Your task to perform on an android device: Open Google Chrome Image 0: 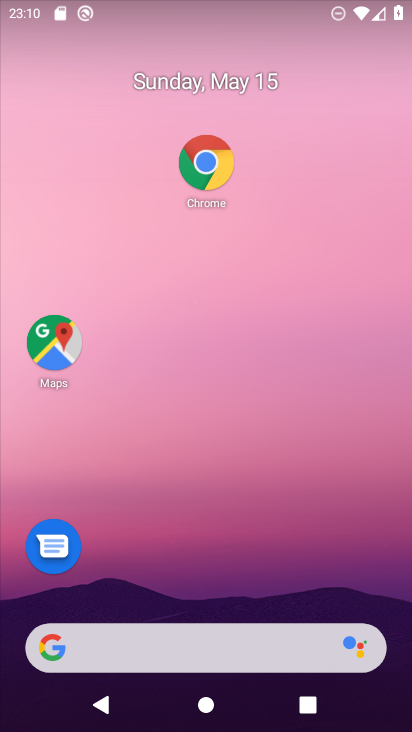
Step 0: click (214, 163)
Your task to perform on an android device: Open Google Chrome Image 1: 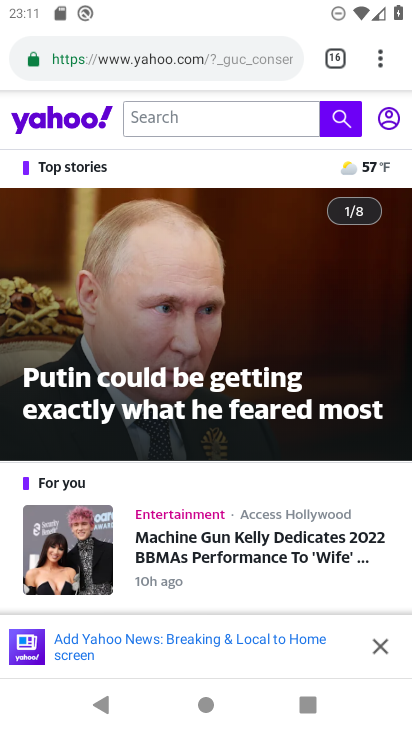
Step 1: task complete